Your task to perform on an android device: turn on notifications settings in the gmail app Image 0: 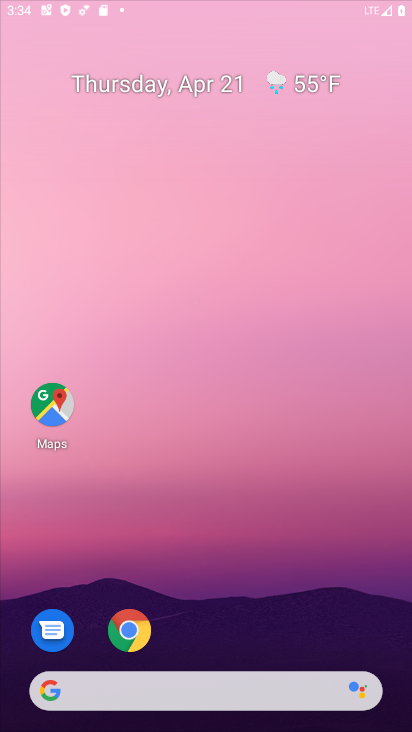
Step 0: drag from (267, 273) to (309, 67)
Your task to perform on an android device: turn on notifications settings in the gmail app Image 1: 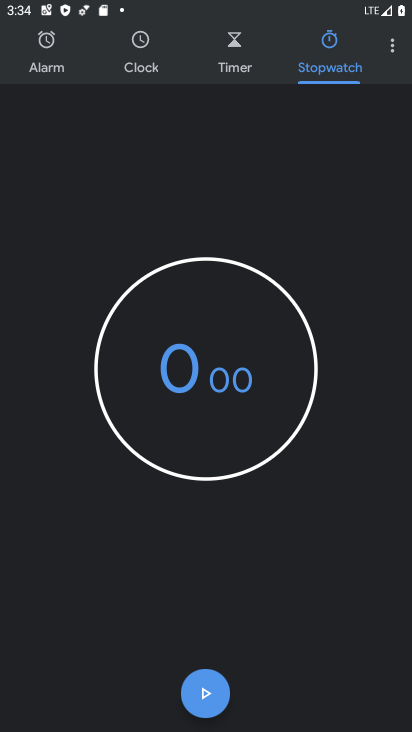
Step 1: press back button
Your task to perform on an android device: turn on notifications settings in the gmail app Image 2: 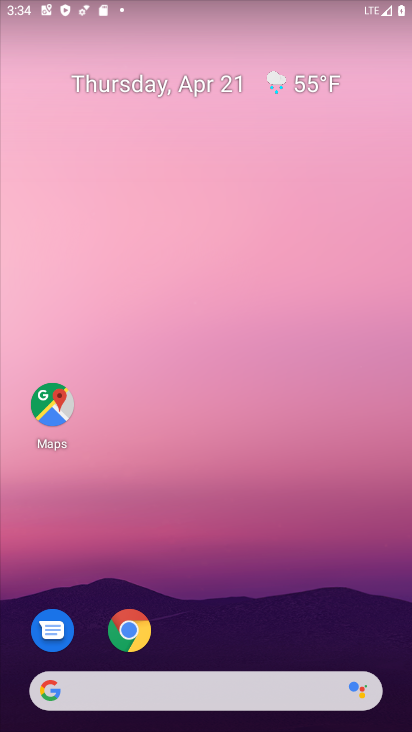
Step 2: drag from (176, 604) to (238, 114)
Your task to perform on an android device: turn on notifications settings in the gmail app Image 3: 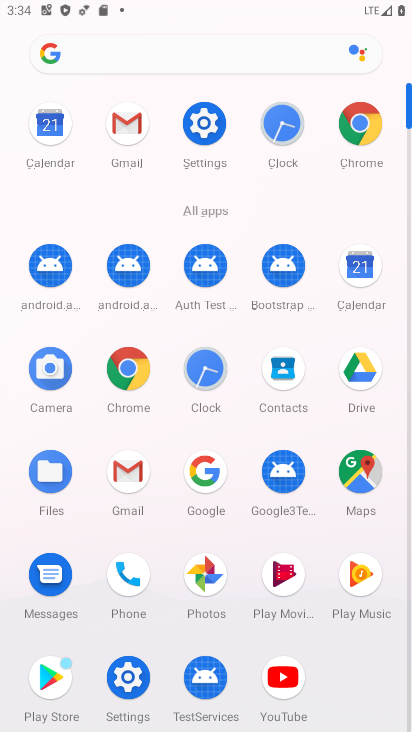
Step 3: click (116, 127)
Your task to perform on an android device: turn on notifications settings in the gmail app Image 4: 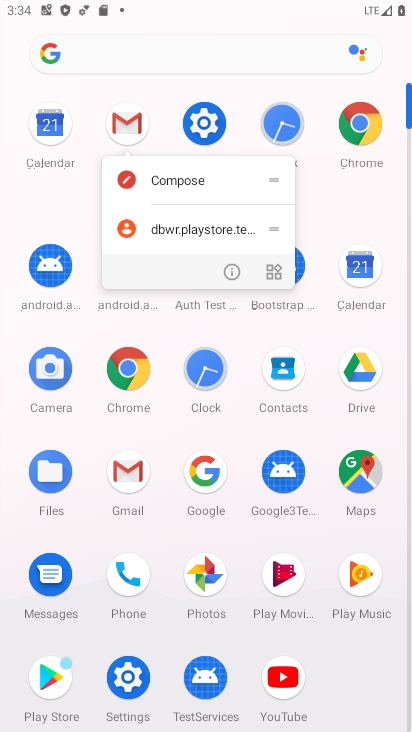
Step 4: click (227, 264)
Your task to perform on an android device: turn on notifications settings in the gmail app Image 5: 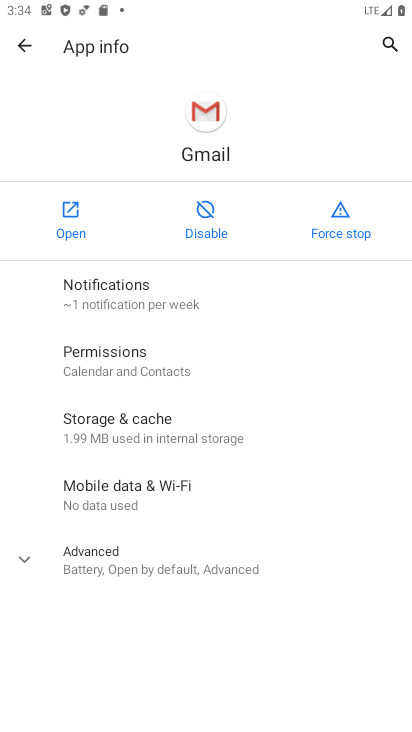
Step 5: click (136, 292)
Your task to perform on an android device: turn on notifications settings in the gmail app Image 6: 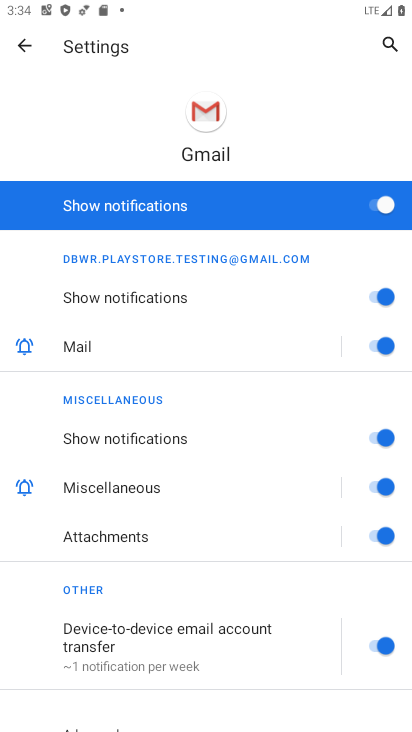
Step 6: task complete